Your task to perform on an android device: Check the weather Image 0: 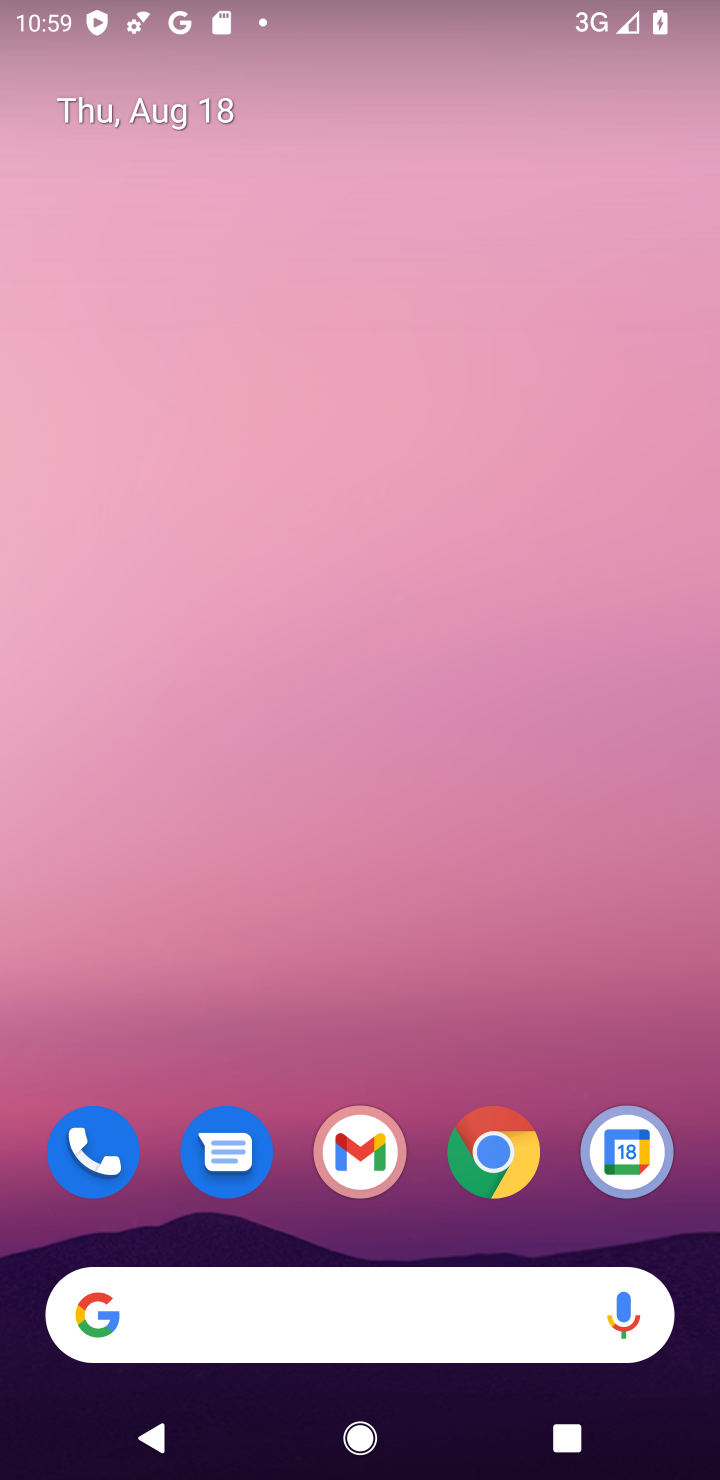
Step 0: click (322, 1326)
Your task to perform on an android device: Check the weather Image 1: 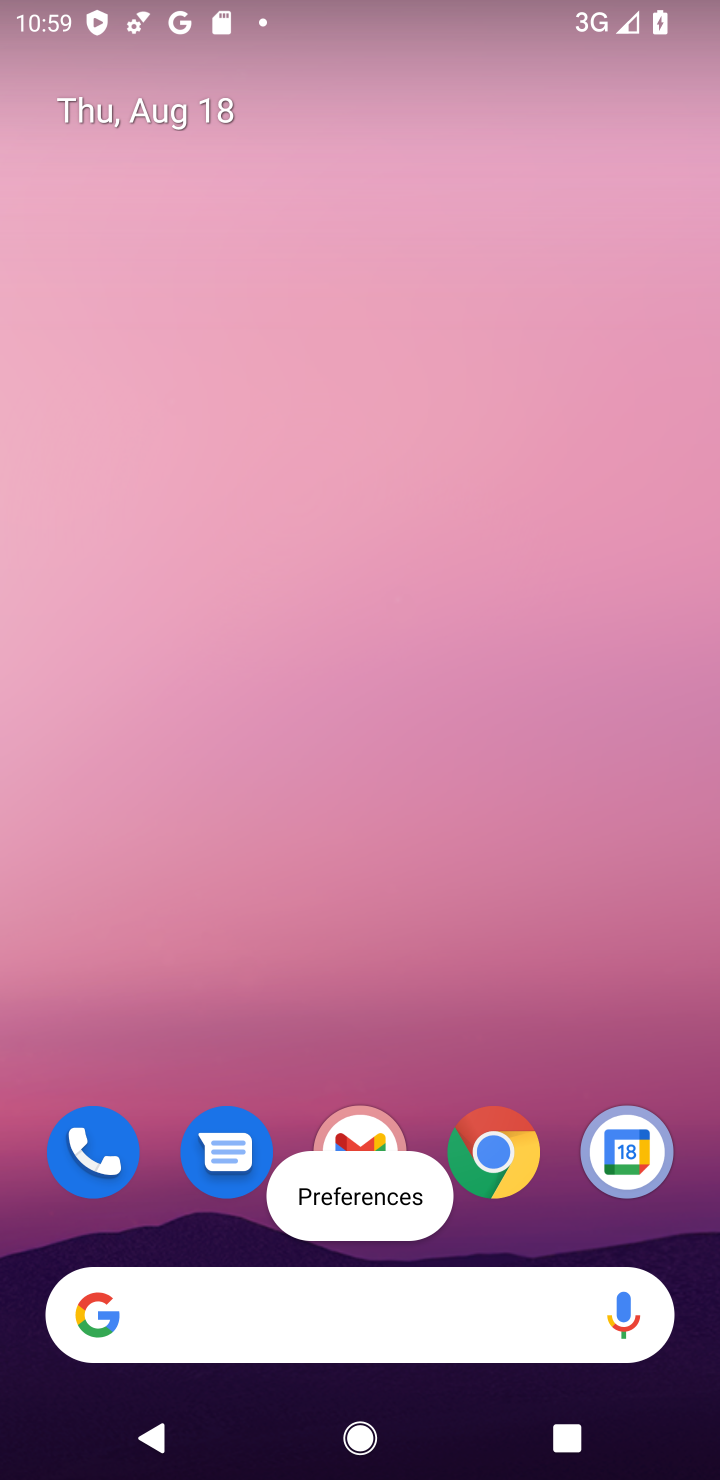
Step 1: click (248, 1327)
Your task to perform on an android device: Check the weather Image 2: 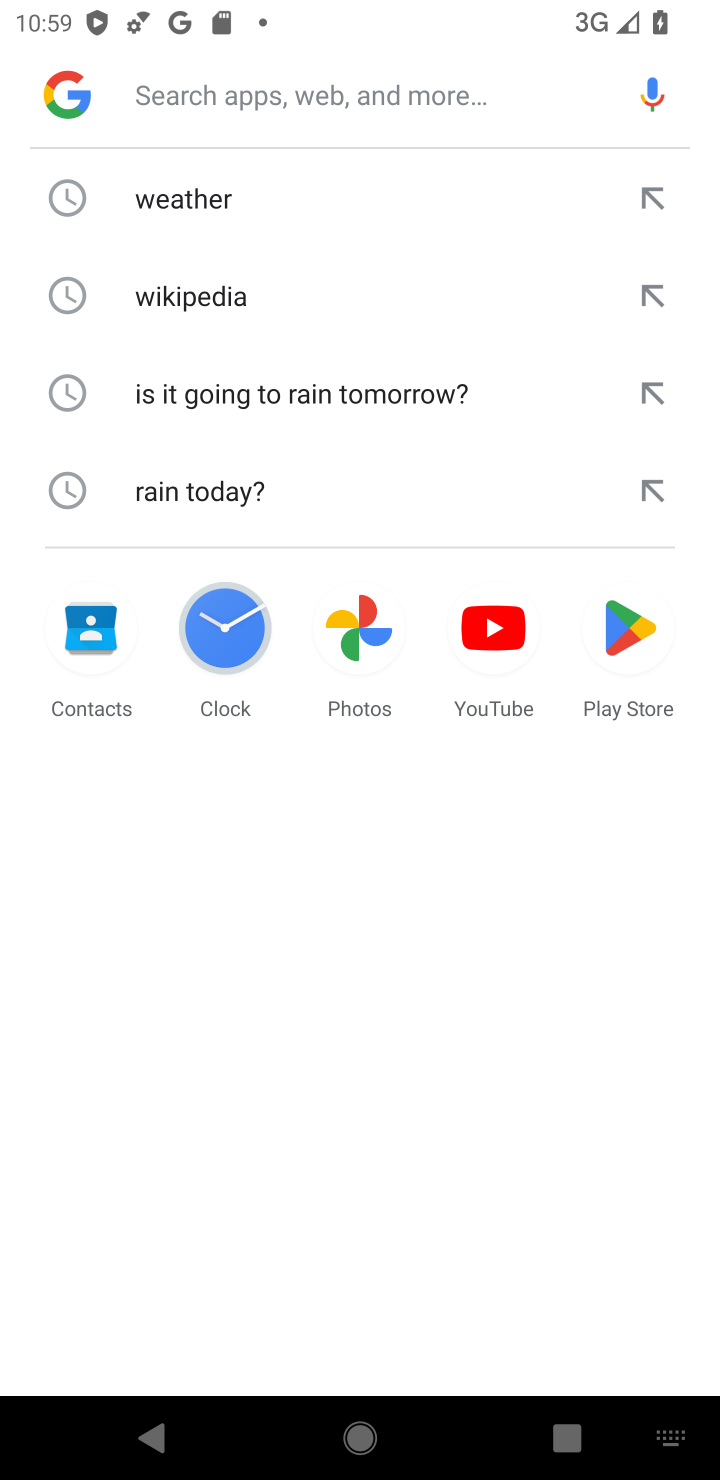
Step 2: click (219, 195)
Your task to perform on an android device: Check the weather Image 3: 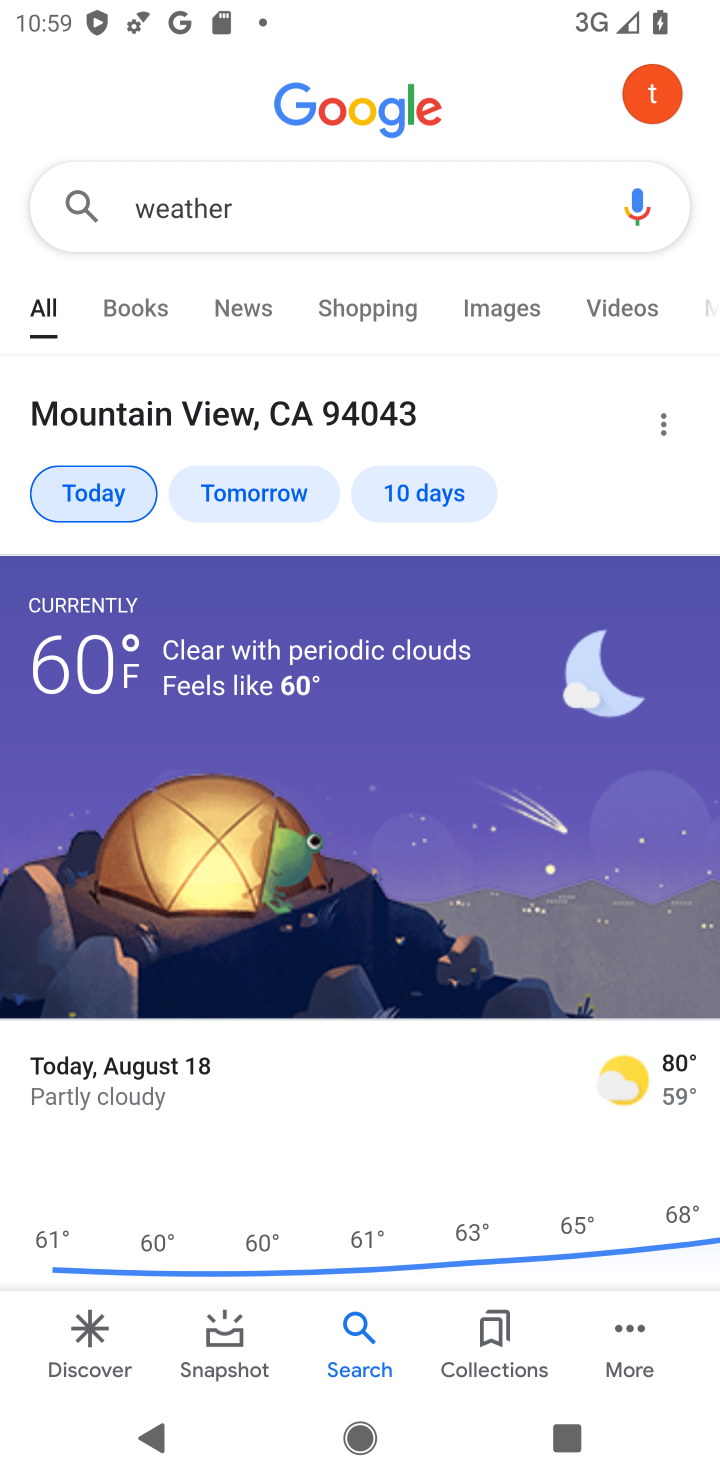
Step 3: click (100, 499)
Your task to perform on an android device: Check the weather Image 4: 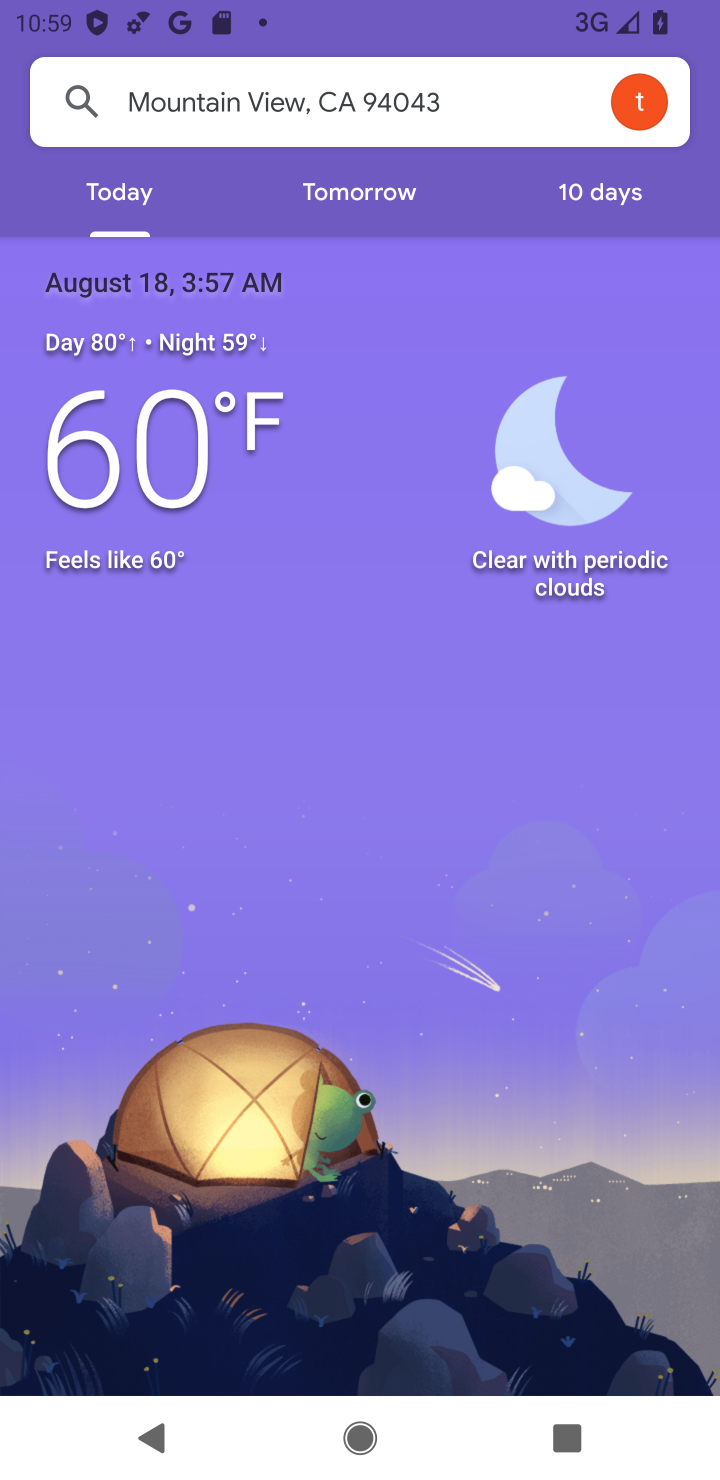
Step 4: task complete